Your task to perform on an android device: remove spam from my inbox in the gmail app Image 0: 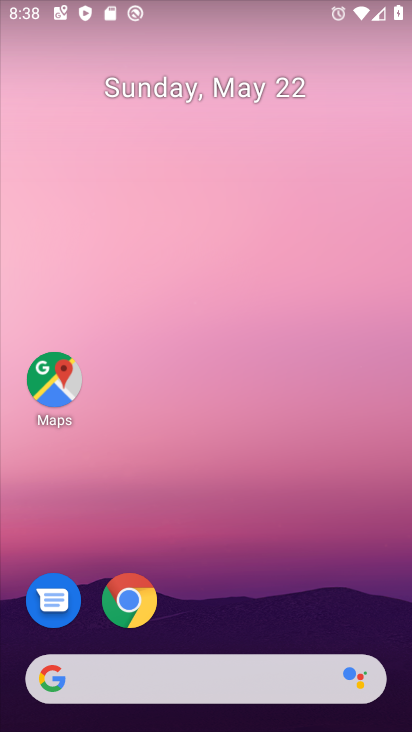
Step 0: drag from (254, 659) to (285, 282)
Your task to perform on an android device: remove spam from my inbox in the gmail app Image 1: 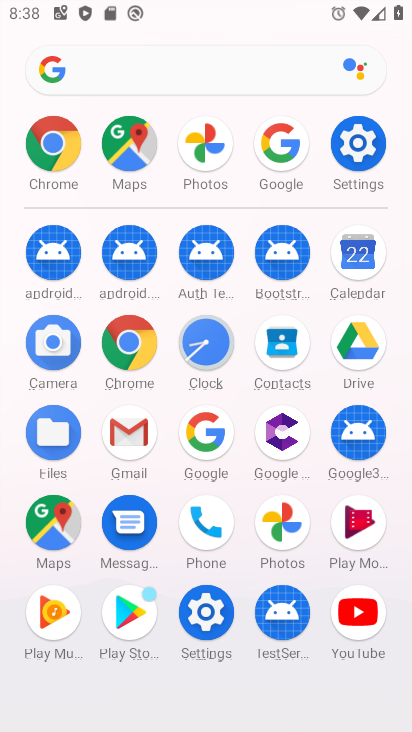
Step 1: click (126, 457)
Your task to perform on an android device: remove spam from my inbox in the gmail app Image 2: 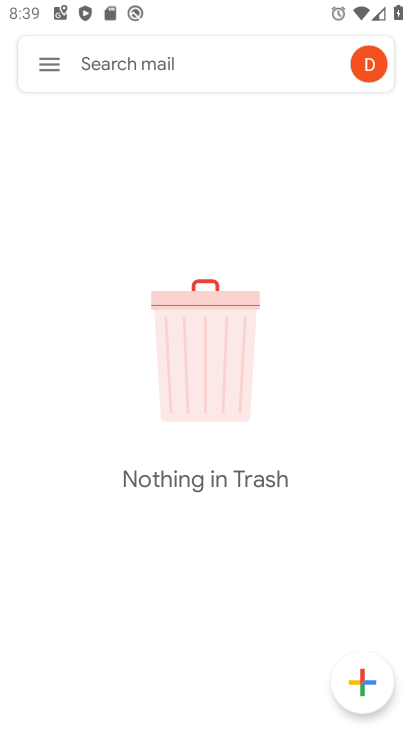
Step 2: task complete